Your task to perform on an android device: Open privacy settings Image 0: 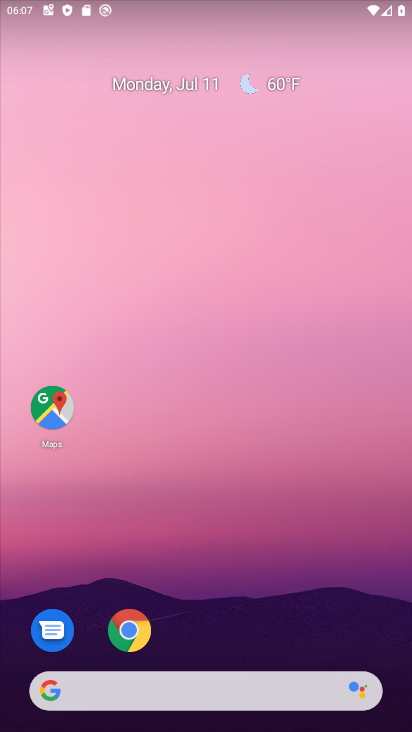
Step 0: drag from (196, 243) to (200, 25)
Your task to perform on an android device: Open privacy settings Image 1: 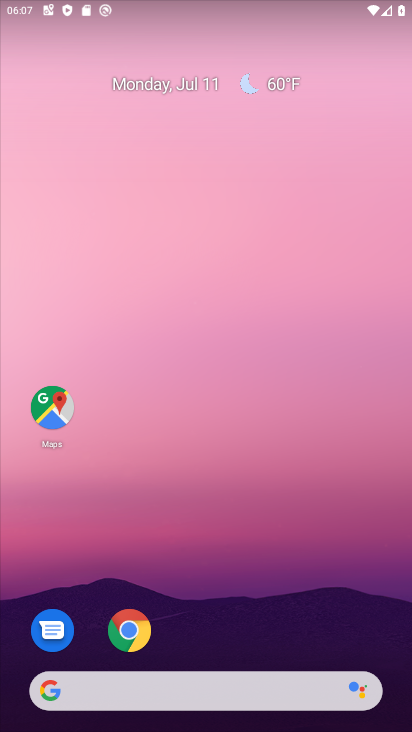
Step 1: drag from (202, 579) to (225, 99)
Your task to perform on an android device: Open privacy settings Image 2: 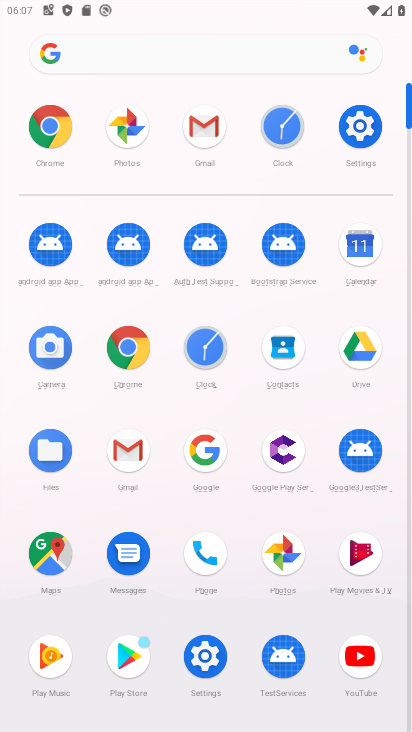
Step 2: click (364, 133)
Your task to perform on an android device: Open privacy settings Image 3: 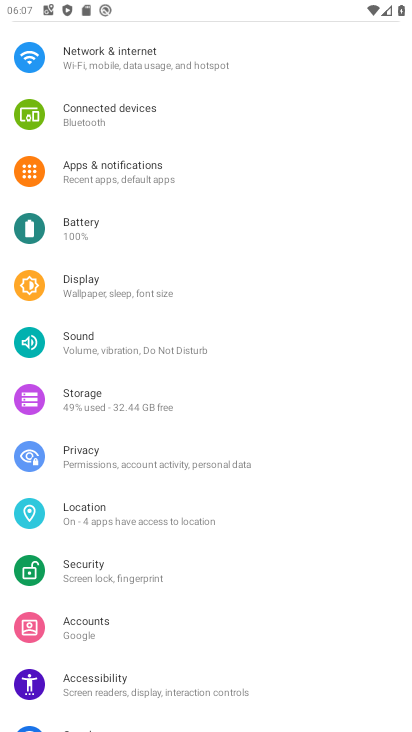
Step 3: click (106, 466)
Your task to perform on an android device: Open privacy settings Image 4: 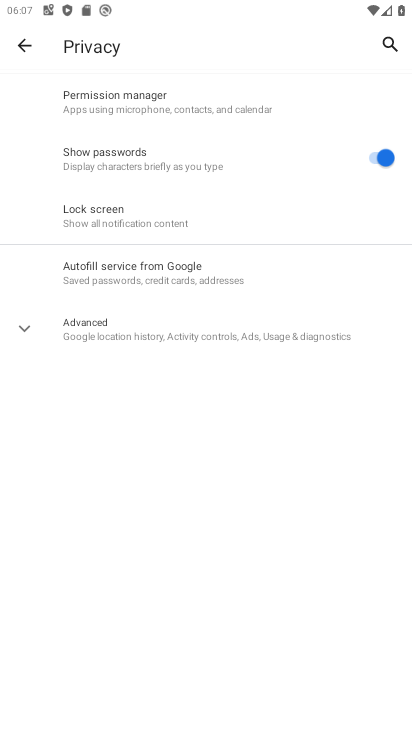
Step 4: task complete